Your task to perform on an android device: turn off translation in the chrome app Image 0: 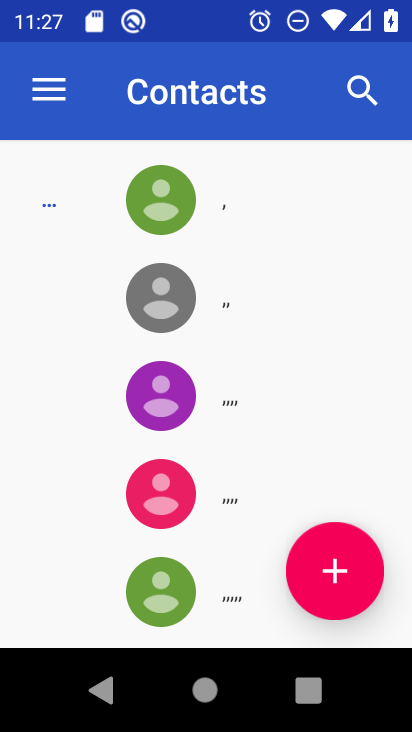
Step 0: press home button
Your task to perform on an android device: turn off translation in the chrome app Image 1: 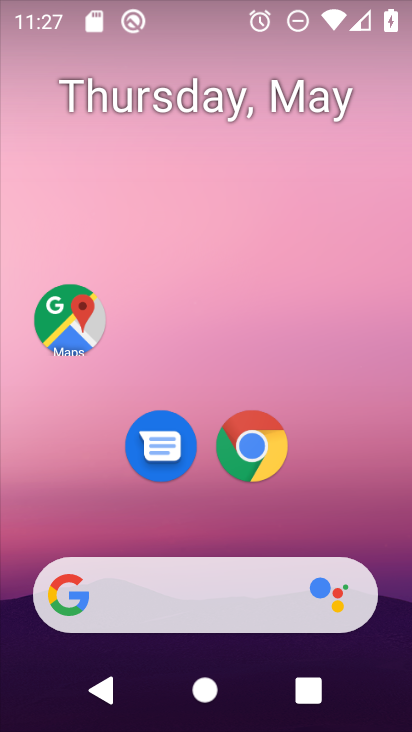
Step 1: drag from (164, 631) to (309, 159)
Your task to perform on an android device: turn off translation in the chrome app Image 2: 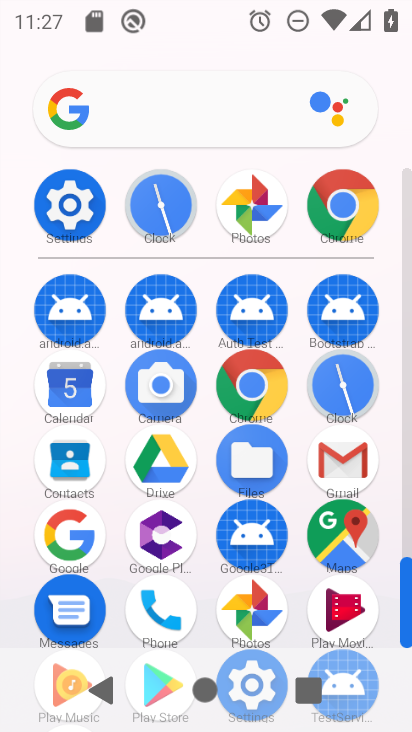
Step 2: click (350, 191)
Your task to perform on an android device: turn off translation in the chrome app Image 3: 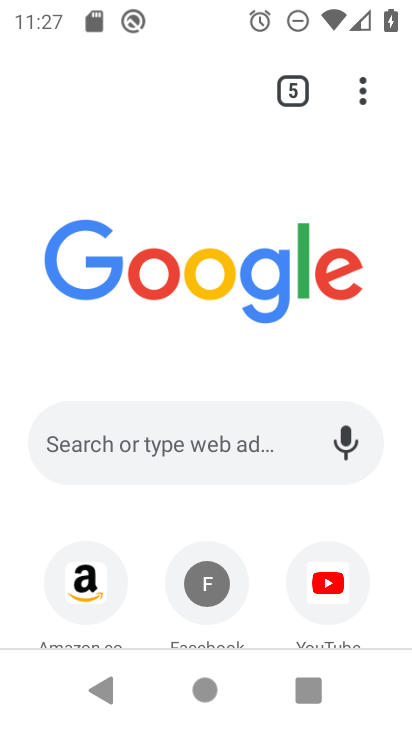
Step 3: click (358, 115)
Your task to perform on an android device: turn off translation in the chrome app Image 4: 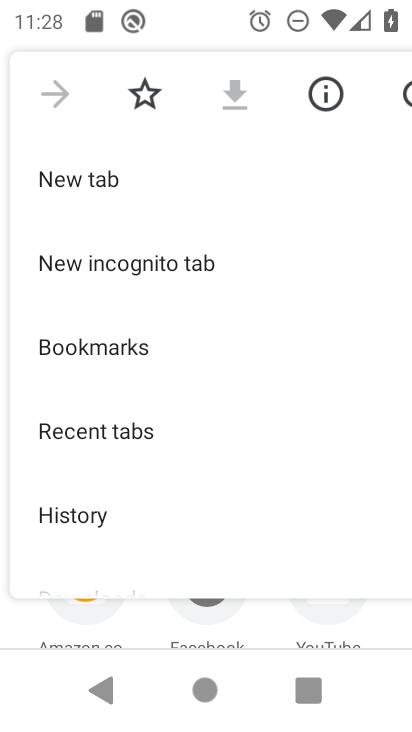
Step 4: drag from (189, 477) to (201, 256)
Your task to perform on an android device: turn off translation in the chrome app Image 5: 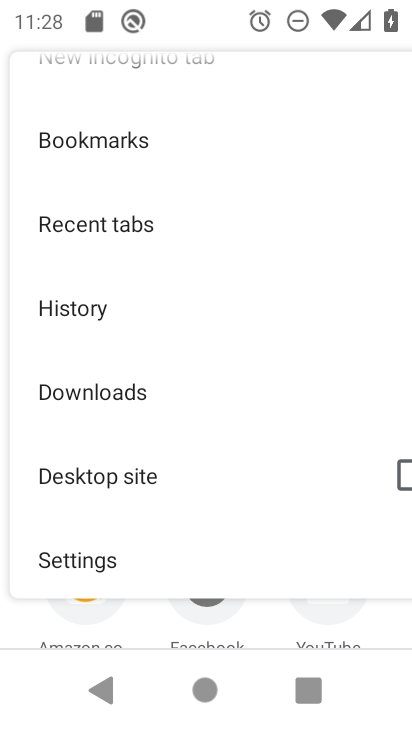
Step 5: click (80, 545)
Your task to perform on an android device: turn off translation in the chrome app Image 6: 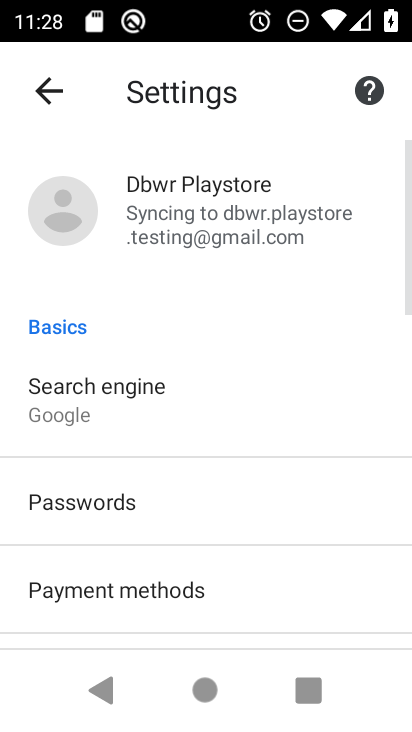
Step 6: drag from (117, 578) to (164, 335)
Your task to perform on an android device: turn off translation in the chrome app Image 7: 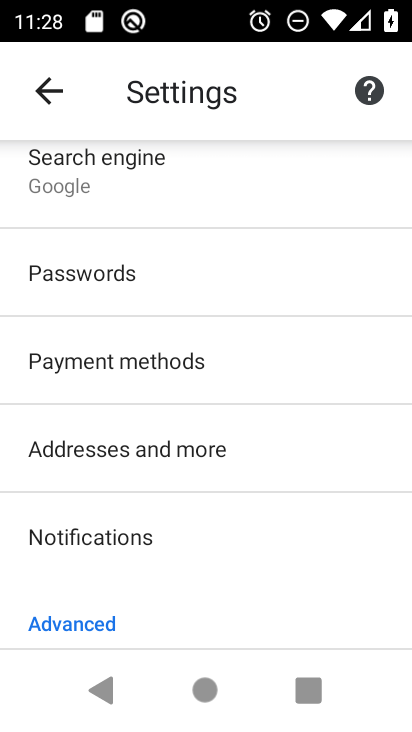
Step 7: drag from (162, 531) to (233, 275)
Your task to perform on an android device: turn off translation in the chrome app Image 8: 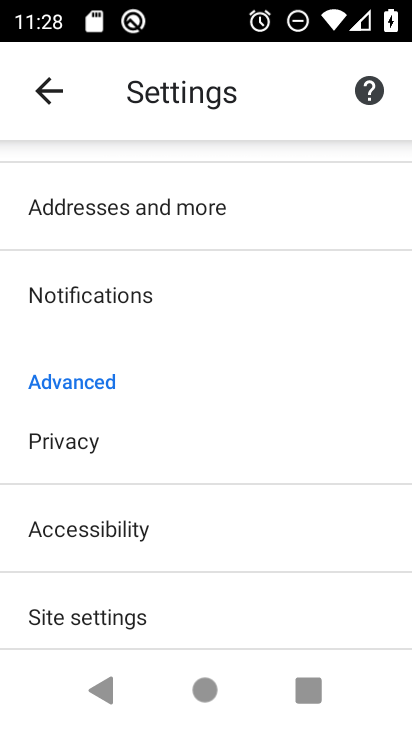
Step 8: drag from (156, 570) to (174, 432)
Your task to perform on an android device: turn off translation in the chrome app Image 9: 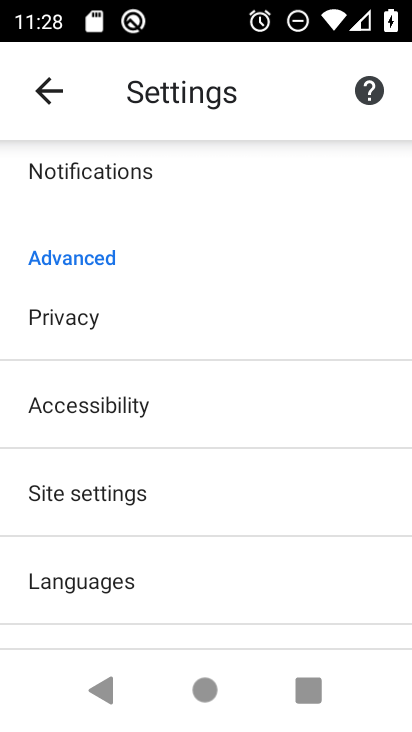
Step 9: click (71, 580)
Your task to perform on an android device: turn off translation in the chrome app Image 10: 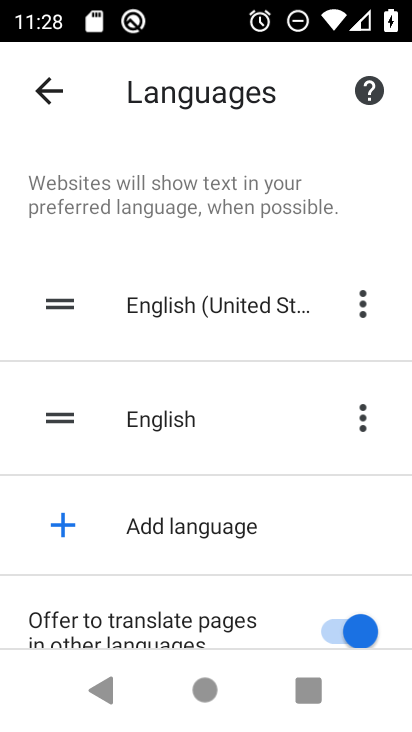
Step 10: drag from (61, 524) to (75, 426)
Your task to perform on an android device: turn off translation in the chrome app Image 11: 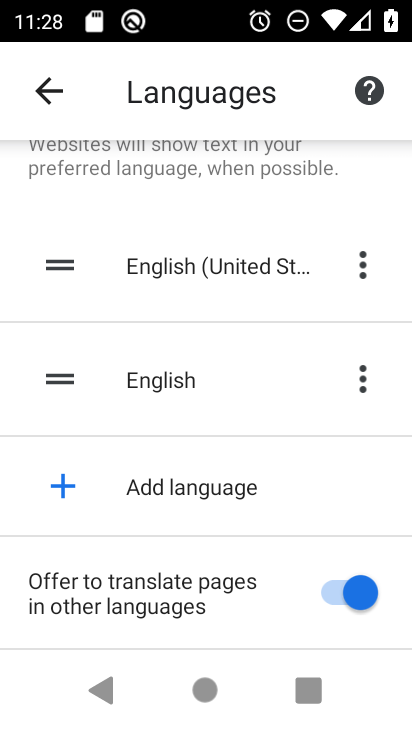
Step 11: click (326, 591)
Your task to perform on an android device: turn off translation in the chrome app Image 12: 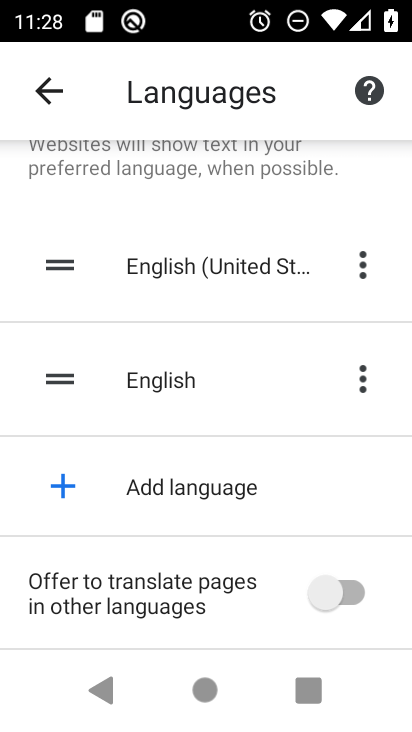
Step 12: task complete